Your task to perform on an android device: Open the calendar app, open the side menu, and click the "Day" option Image 0: 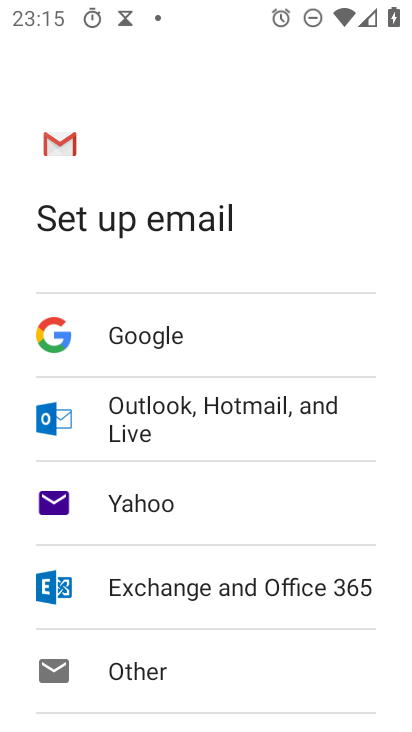
Step 0: press home button
Your task to perform on an android device: Open the calendar app, open the side menu, and click the "Day" option Image 1: 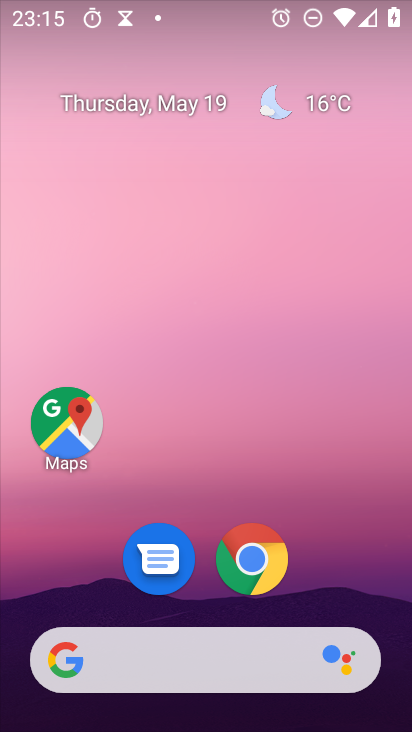
Step 1: drag from (209, 717) to (208, 4)
Your task to perform on an android device: Open the calendar app, open the side menu, and click the "Day" option Image 2: 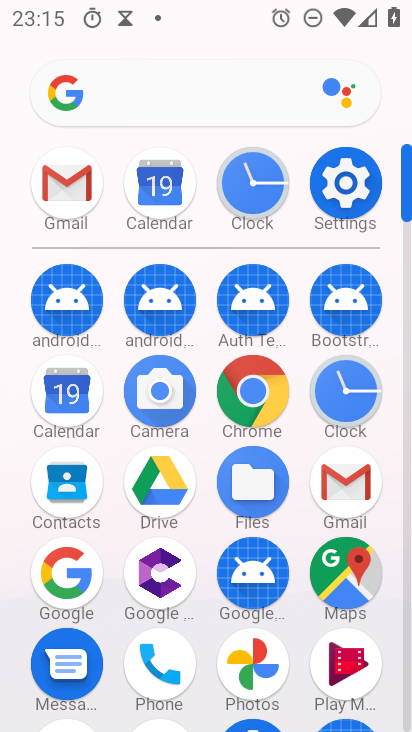
Step 2: click (55, 407)
Your task to perform on an android device: Open the calendar app, open the side menu, and click the "Day" option Image 3: 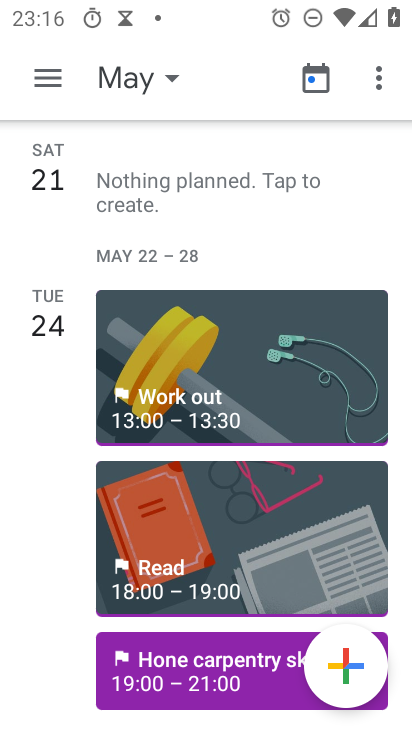
Step 3: click (50, 82)
Your task to perform on an android device: Open the calendar app, open the side menu, and click the "Day" option Image 4: 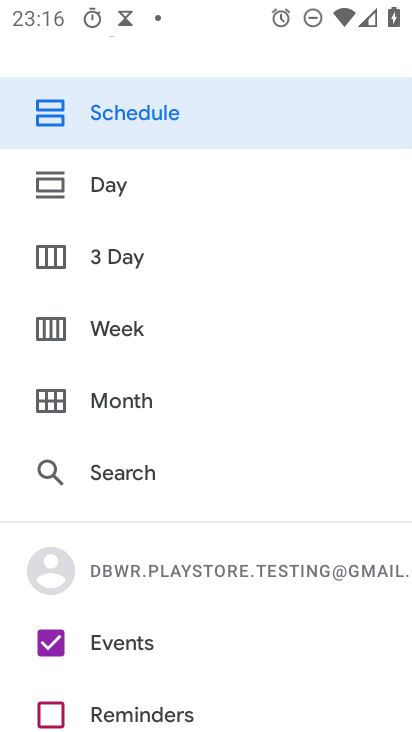
Step 4: click (114, 180)
Your task to perform on an android device: Open the calendar app, open the side menu, and click the "Day" option Image 5: 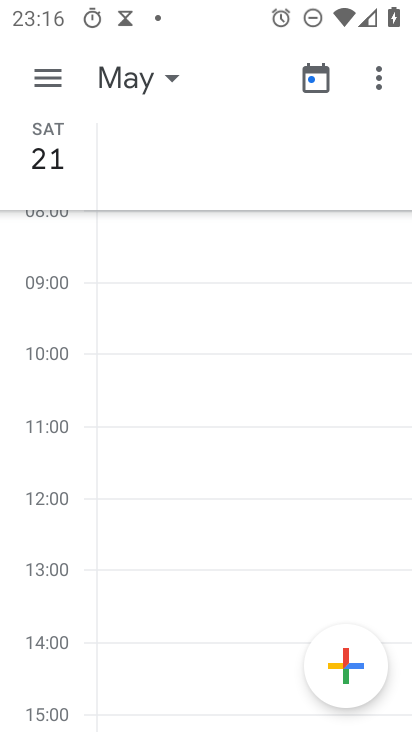
Step 5: task complete